Your task to perform on an android device: Open Google Chrome Image 0: 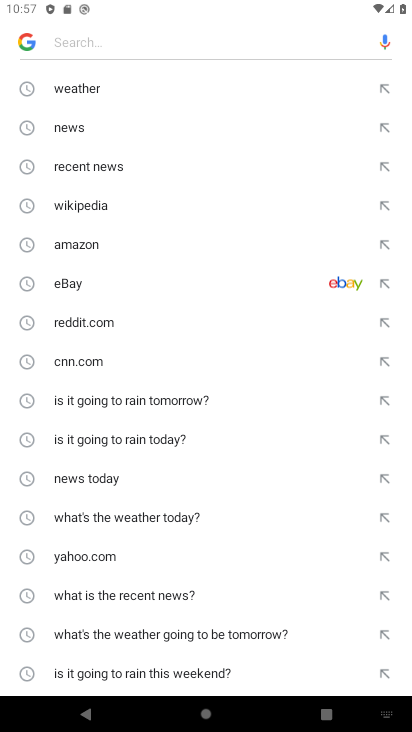
Step 0: press home button
Your task to perform on an android device: Open Google Chrome Image 1: 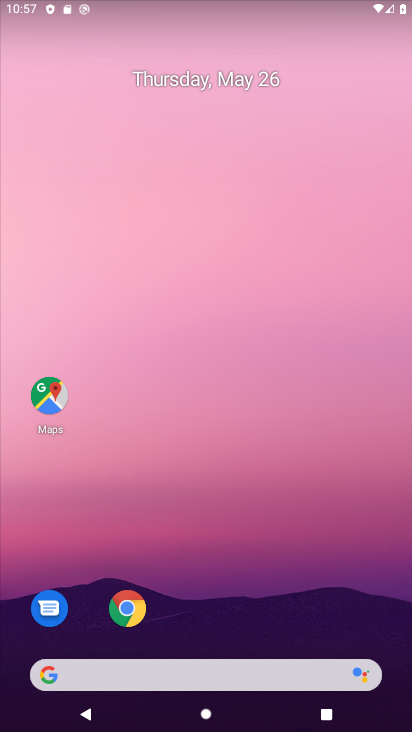
Step 1: click (126, 596)
Your task to perform on an android device: Open Google Chrome Image 2: 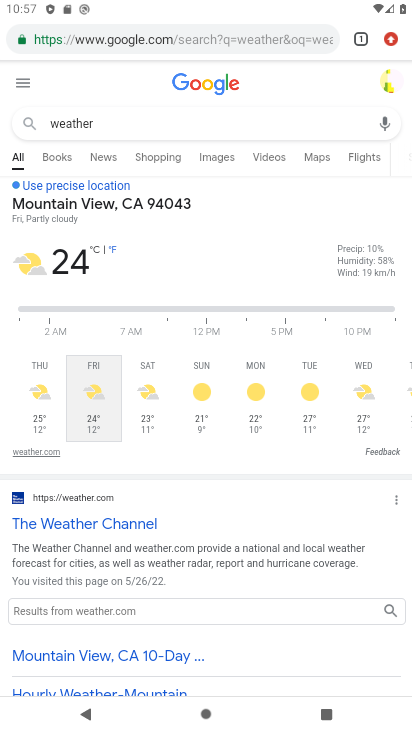
Step 2: task complete